Your task to perform on an android device: set an alarm Image 0: 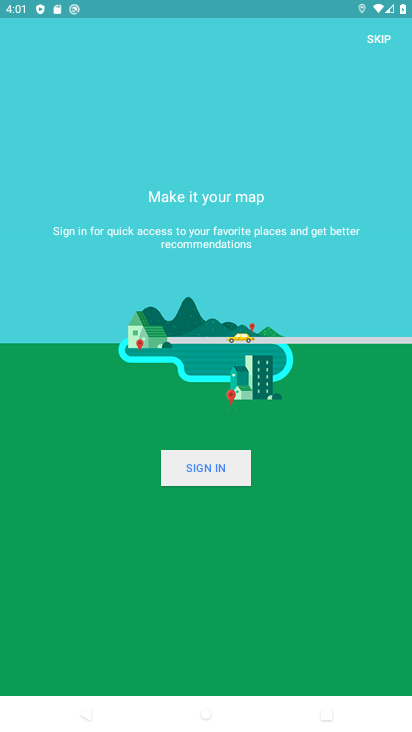
Step 0: press home button
Your task to perform on an android device: set an alarm Image 1: 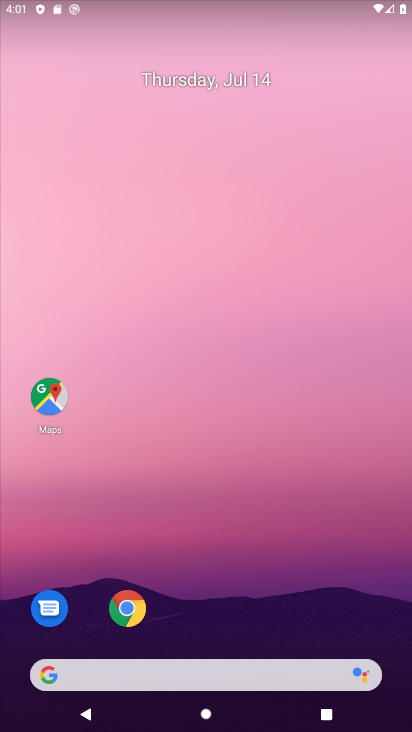
Step 1: drag from (364, 427) to (365, 3)
Your task to perform on an android device: set an alarm Image 2: 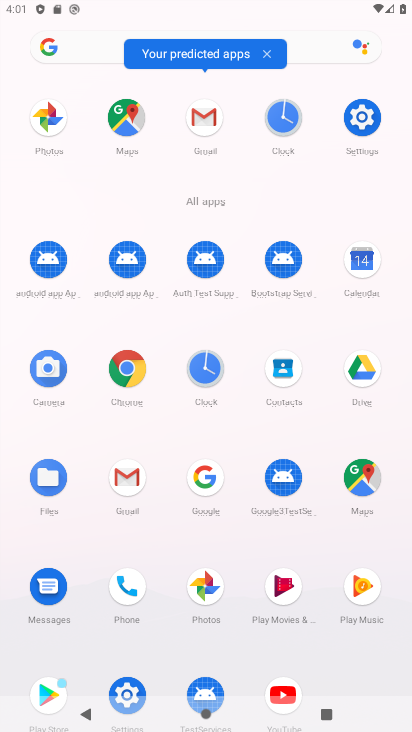
Step 2: click (203, 379)
Your task to perform on an android device: set an alarm Image 3: 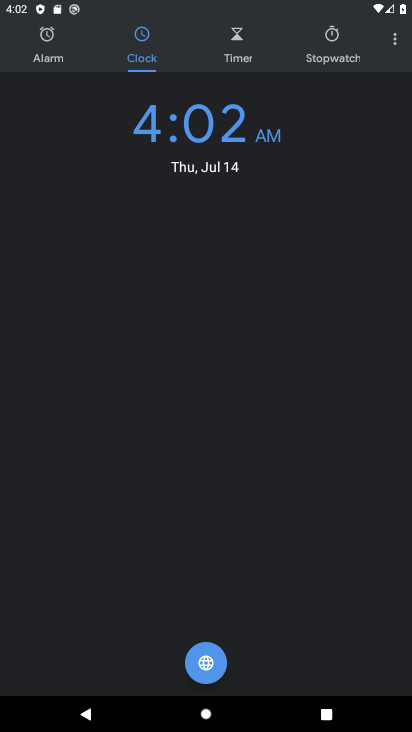
Step 3: click (46, 62)
Your task to perform on an android device: set an alarm Image 4: 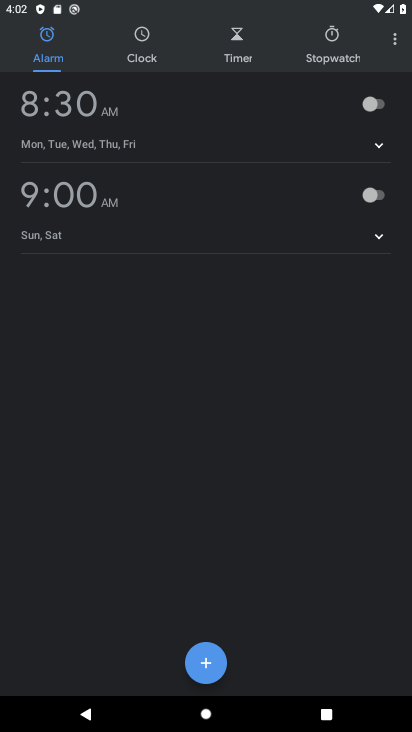
Step 4: click (373, 104)
Your task to perform on an android device: set an alarm Image 5: 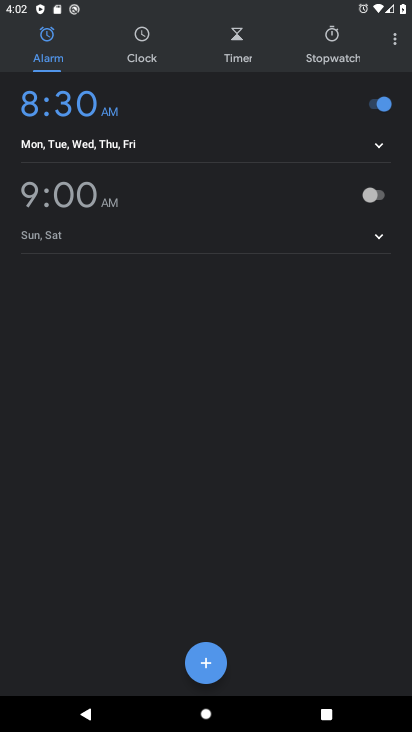
Step 5: task complete